Your task to perform on an android device: Show the shopping cart on bestbuy.com. Add "macbook" to the cart on bestbuy.com, then select checkout. Image 0: 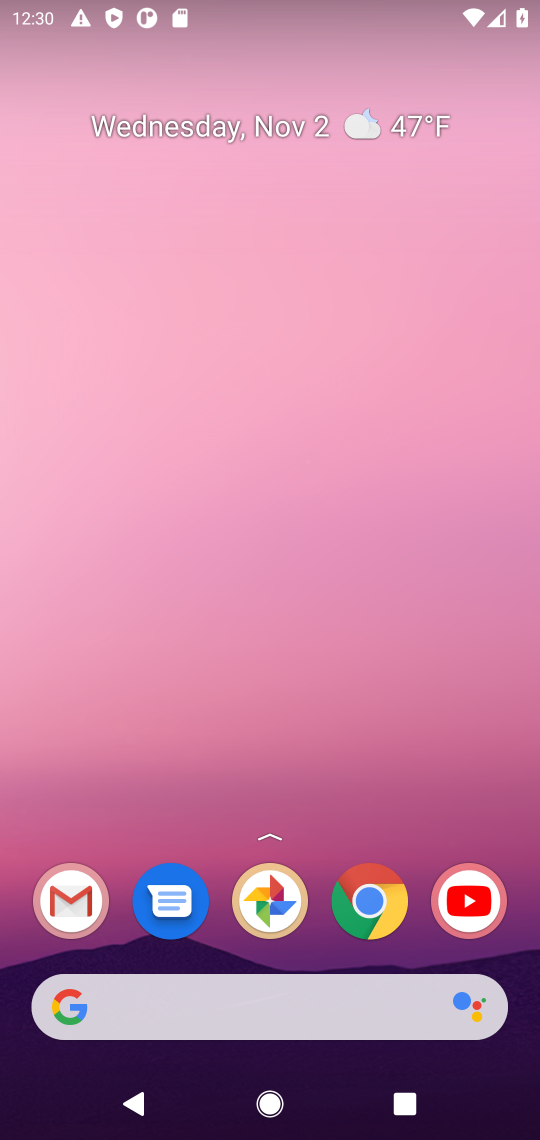
Step 0: drag from (325, 955) to (401, 4)
Your task to perform on an android device: Show the shopping cart on bestbuy.com. Add "macbook" to the cart on bestbuy.com, then select checkout. Image 1: 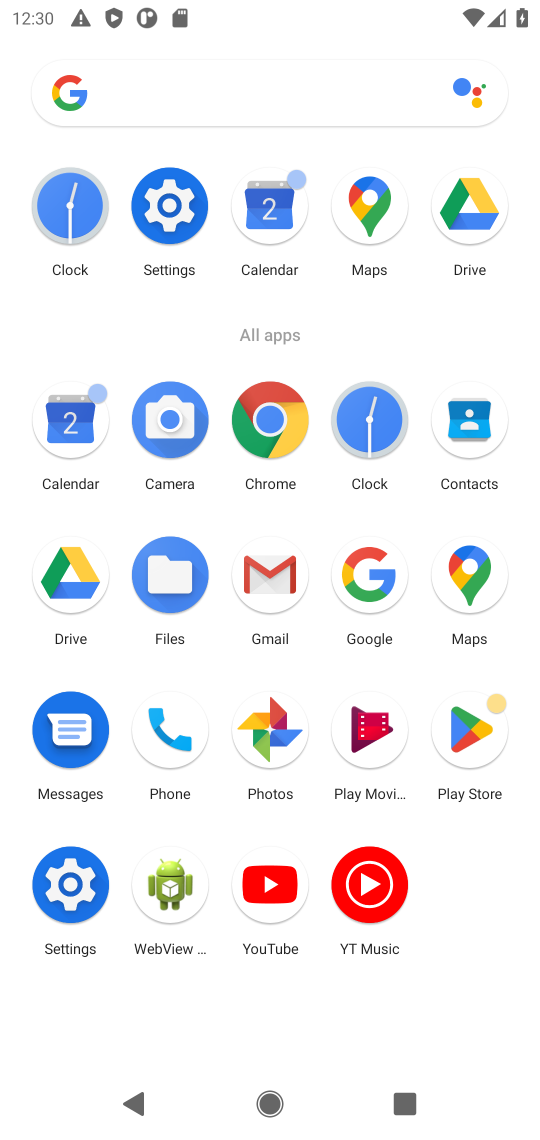
Step 1: click (273, 418)
Your task to perform on an android device: Show the shopping cart on bestbuy.com. Add "macbook" to the cart on bestbuy.com, then select checkout. Image 2: 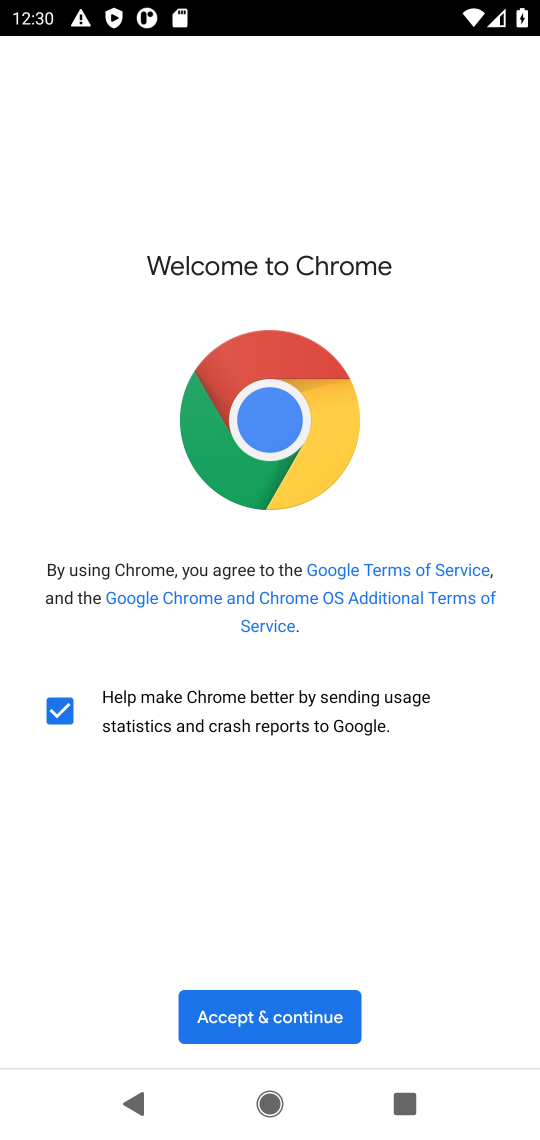
Step 2: click (228, 1024)
Your task to perform on an android device: Show the shopping cart on bestbuy.com. Add "macbook" to the cart on bestbuy.com, then select checkout. Image 3: 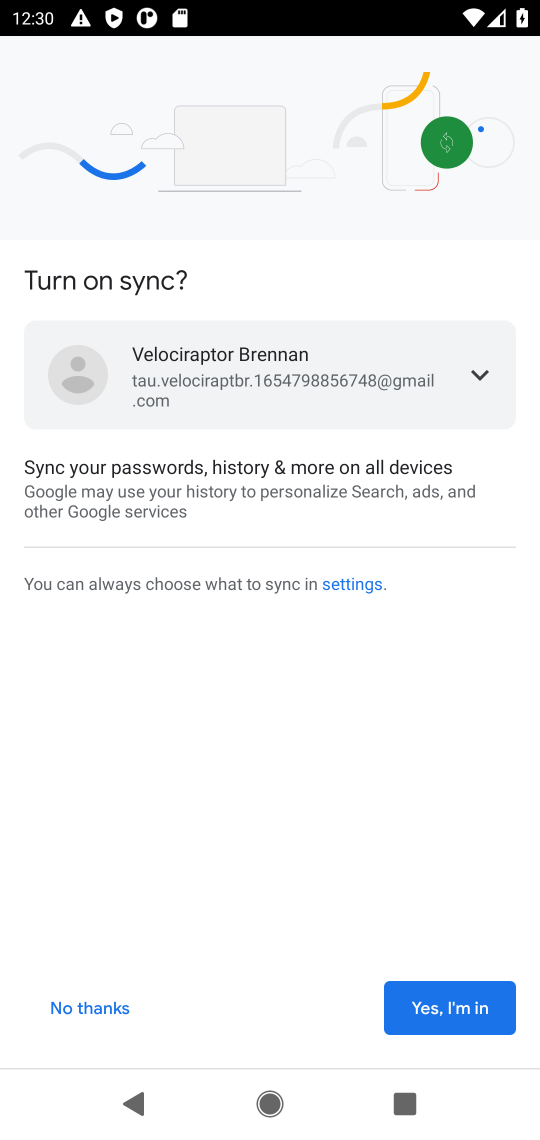
Step 3: click (417, 1014)
Your task to perform on an android device: Show the shopping cart on bestbuy.com. Add "macbook" to the cart on bestbuy.com, then select checkout. Image 4: 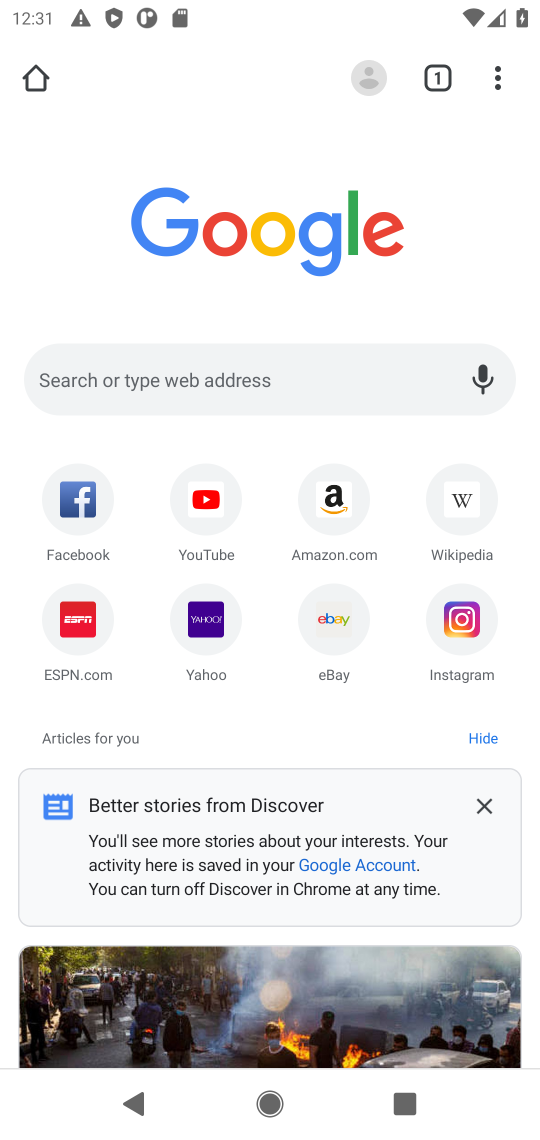
Step 4: click (371, 391)
Your task to perform on an android device: Show the shopping cart on bestbuy.com. Add "macbook" to the cart on bestbuy.com, then select checkout. Image 5: 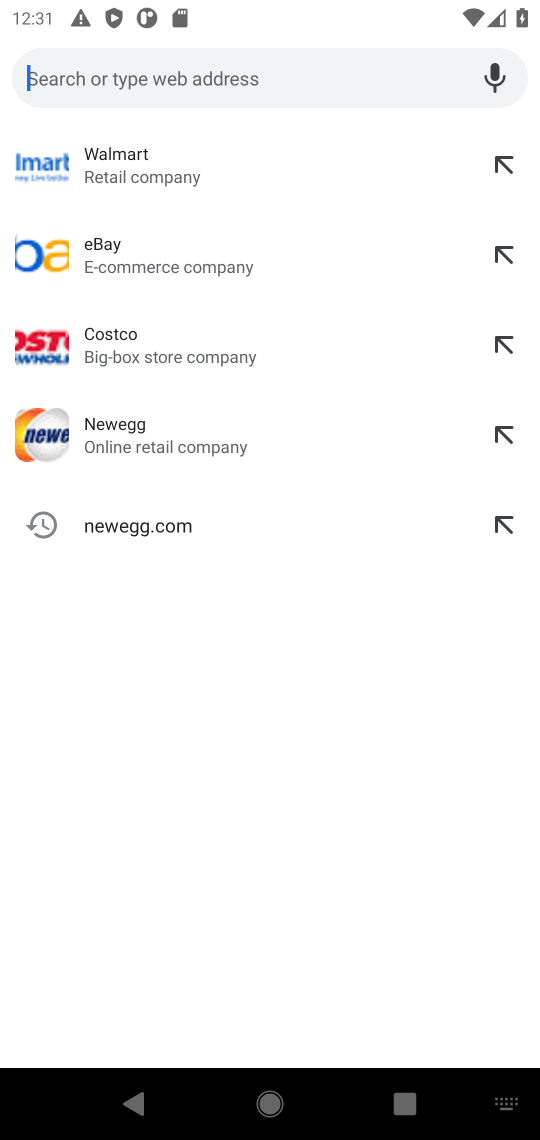
Step 5: type "bestbuy.com"
Your task to perform on an android device: Show the shopping cart on bestbuy.com. Add "macbook" to the cart on bestbuy.com, then select checkout. Image 6: 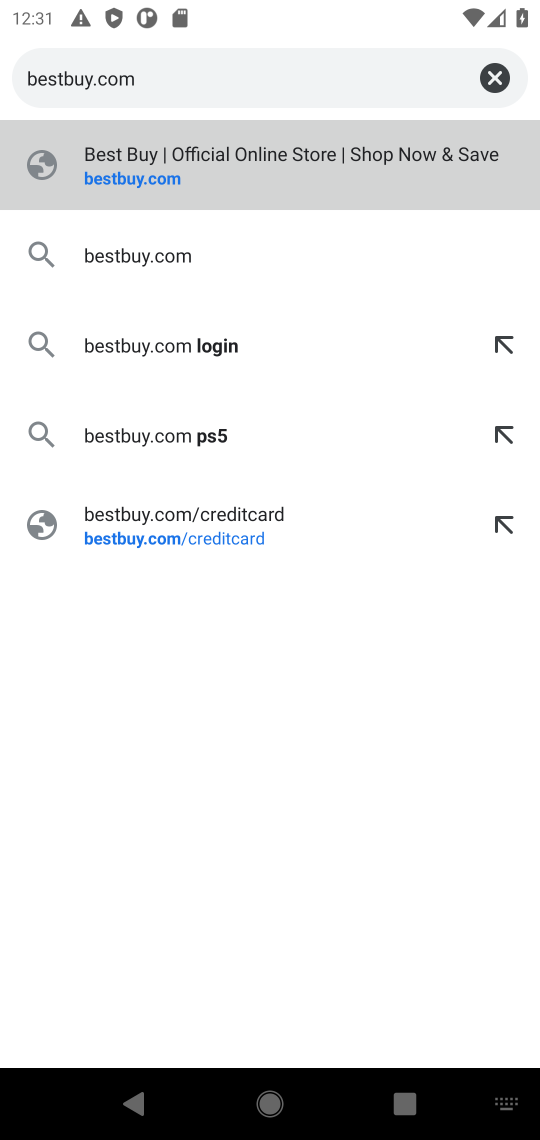
Step 6: press enter
Your task to perform on an android device: Show the shopping cart on bestbuy.com. Add "macbook" to the cart on bestbuy.com, then select checkout. Image 7: 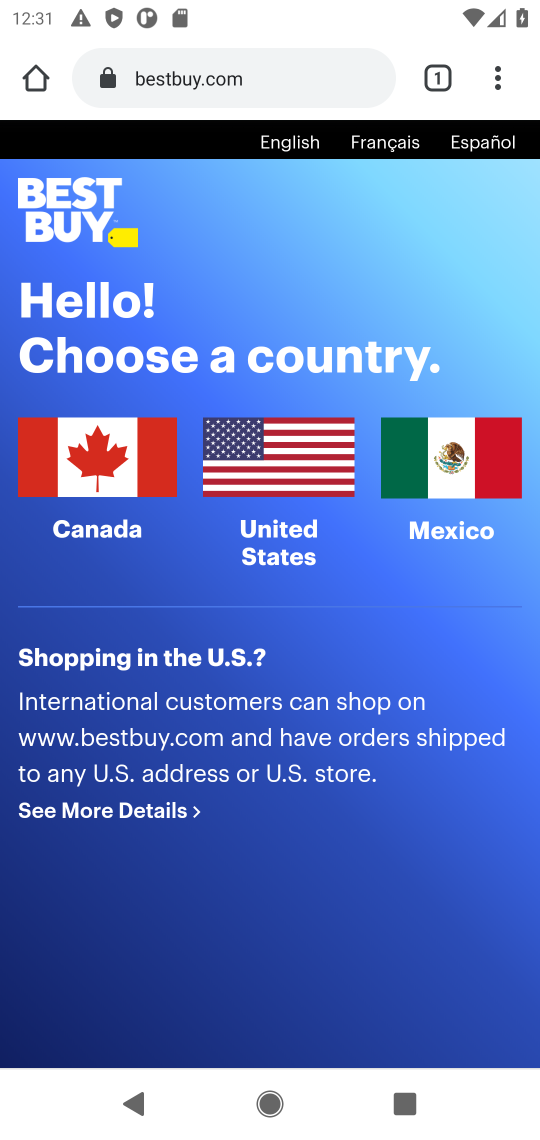
Step 7: click (98, 473)
Your task to perform on an android device: Show the shopping cart on bestbuy.com. Add "macbook" to the cart on bestbuy.com, then select checkout. Image 8: 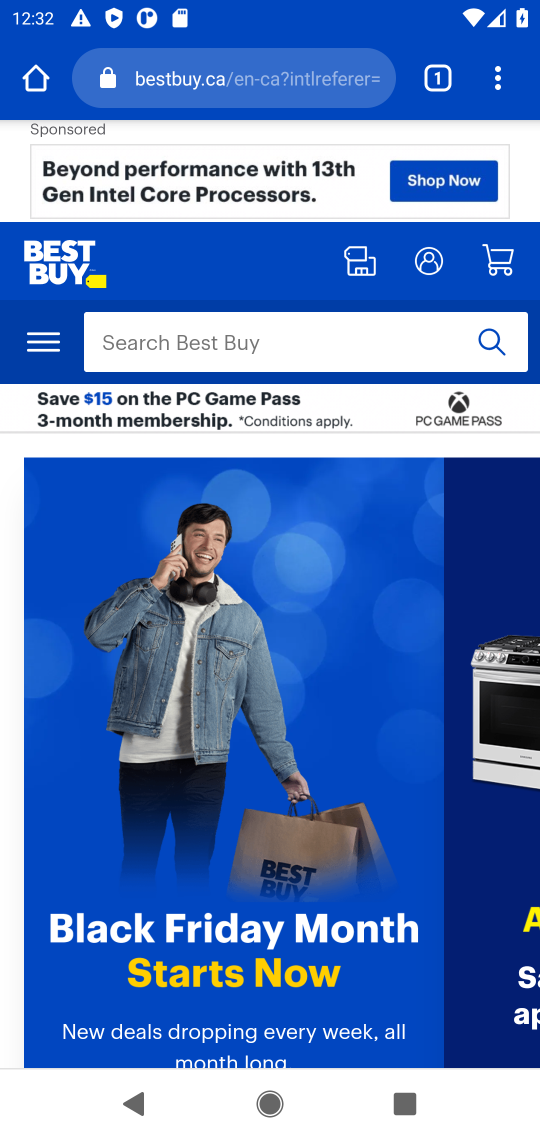
Step 8: click (278, 343)
Your task to perform on an android device: Show the shopping cart on bestbuy.com. Add "macbook" to the cart on bestbuy.com, then select checkout. Image 9: 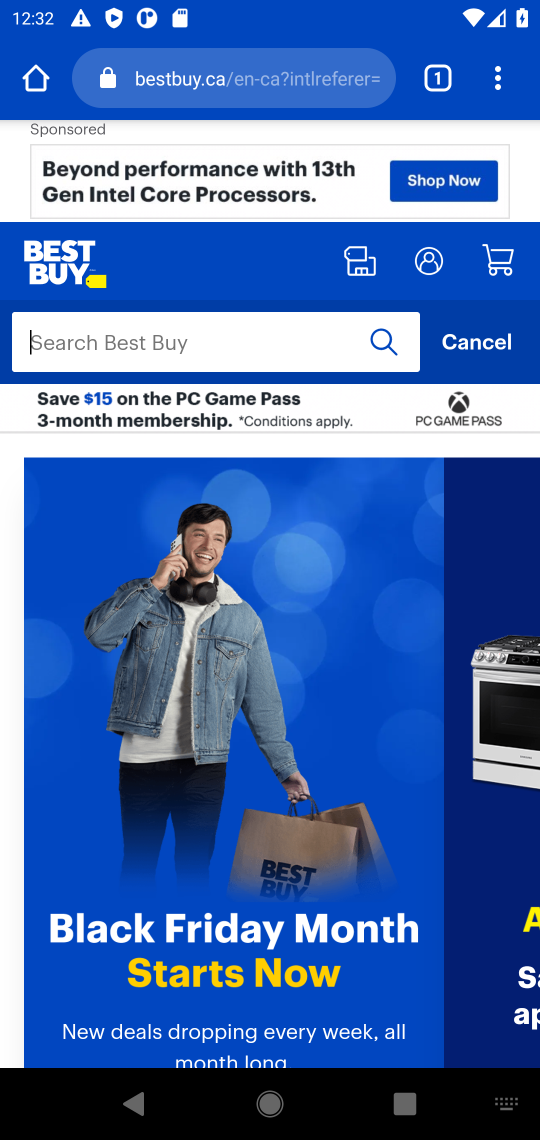
Step 9: click (496, 257)
Your task to perform on an android device: Show the shopping cart on bestbuy.com. Add "macbook" to the cart on bestbuy.com, then select checkout. Image 10: 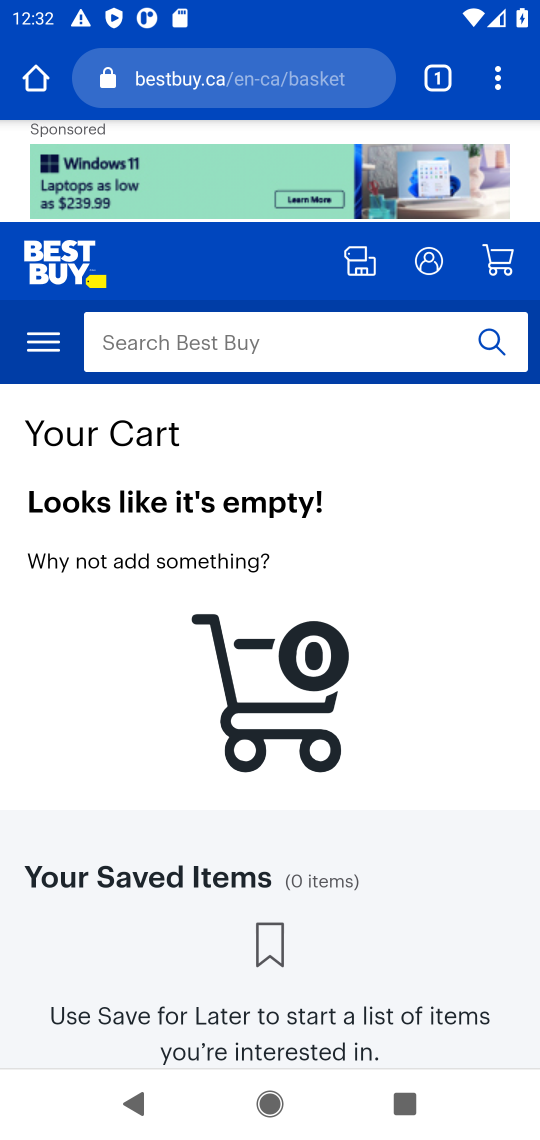
Step 10: click (331, 338)
Your task to perform on an android device: Show the shopping cart on bestbuy.com. Add "macbook" to the cart on bestbuy.com, then select checkout. Image 11: 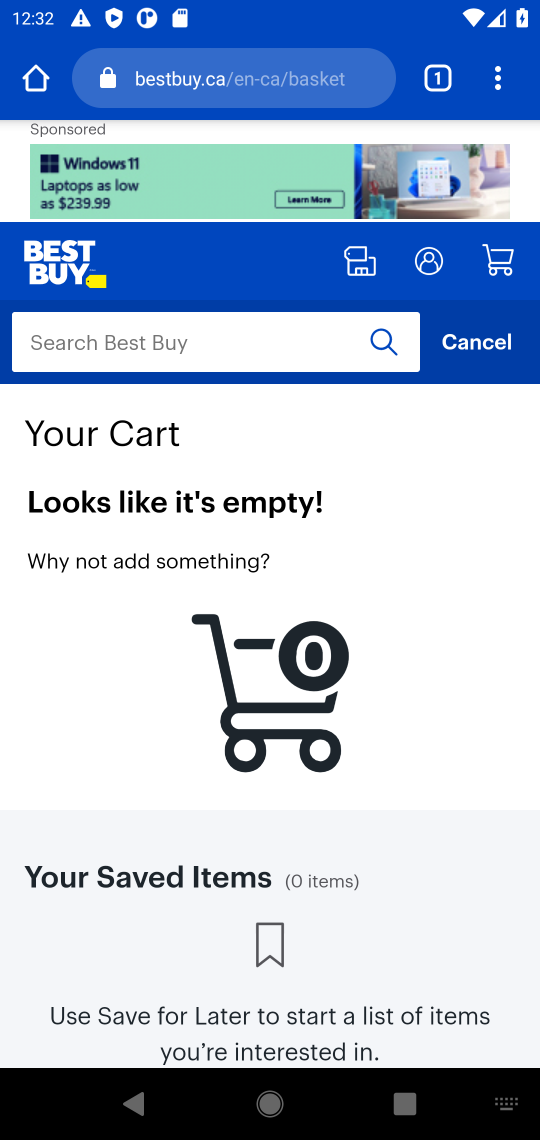
Step 11: type "macbook"
Your task to perform on an android device: Show the shopping cart on bestbuy.com. Add "macbook" to the cart on bestbuy.com, then select checkout. Image 12: 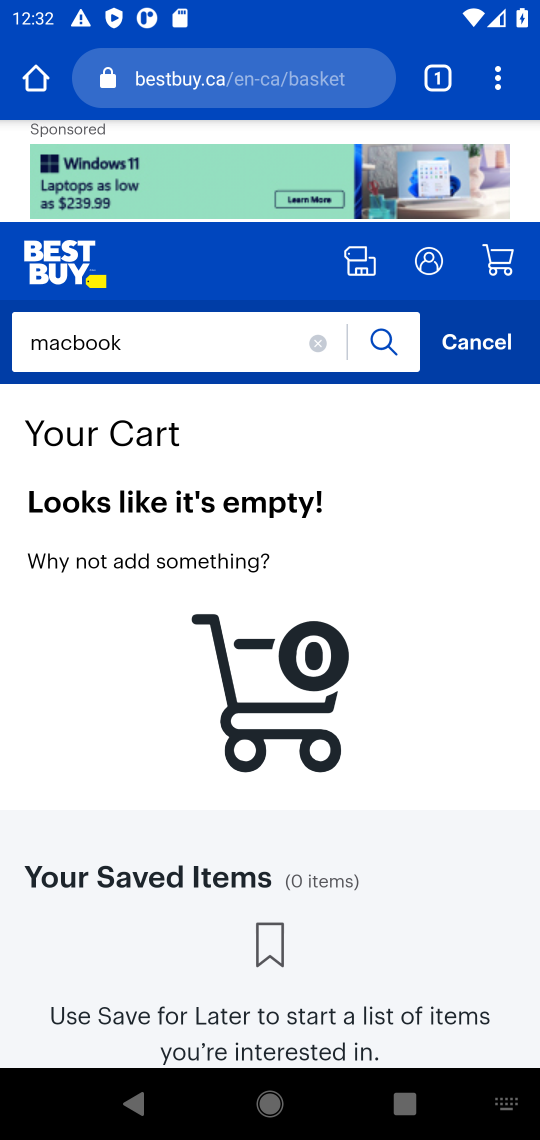
Step 12: press enter
Your task to perform on an android device: Show the shopping cart on bestbuy.com. Add "macbook" to the cart on bestbuy.com, then select checkout. Image 13: 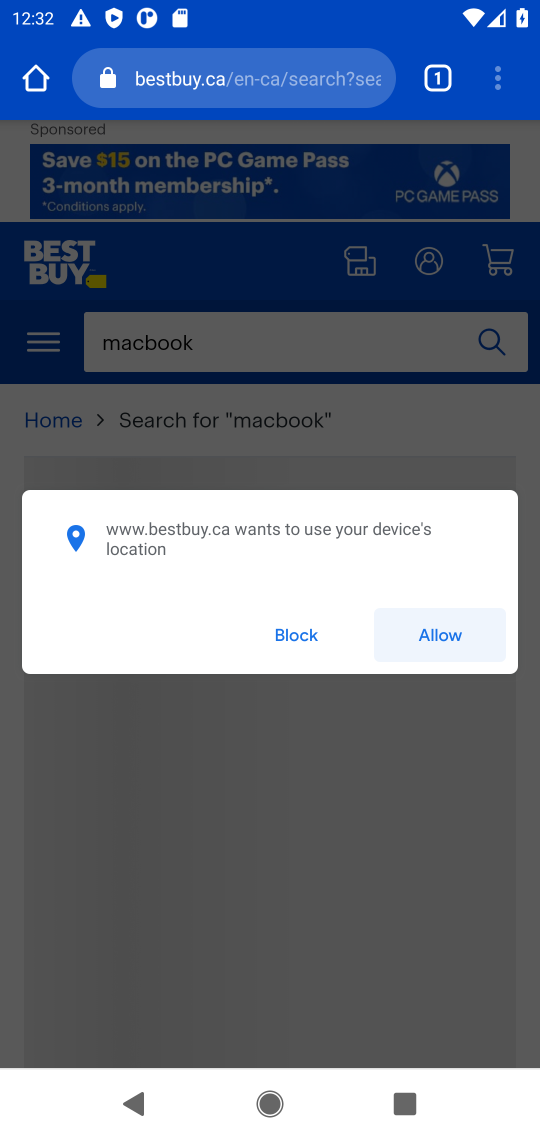
Step 13: click (284, 623)
Your task to perform on an android device: Show the shopping cart on bestbuy.com. Add "macbook" to the cart on bestbuy.com, then select checkout. Image 14: 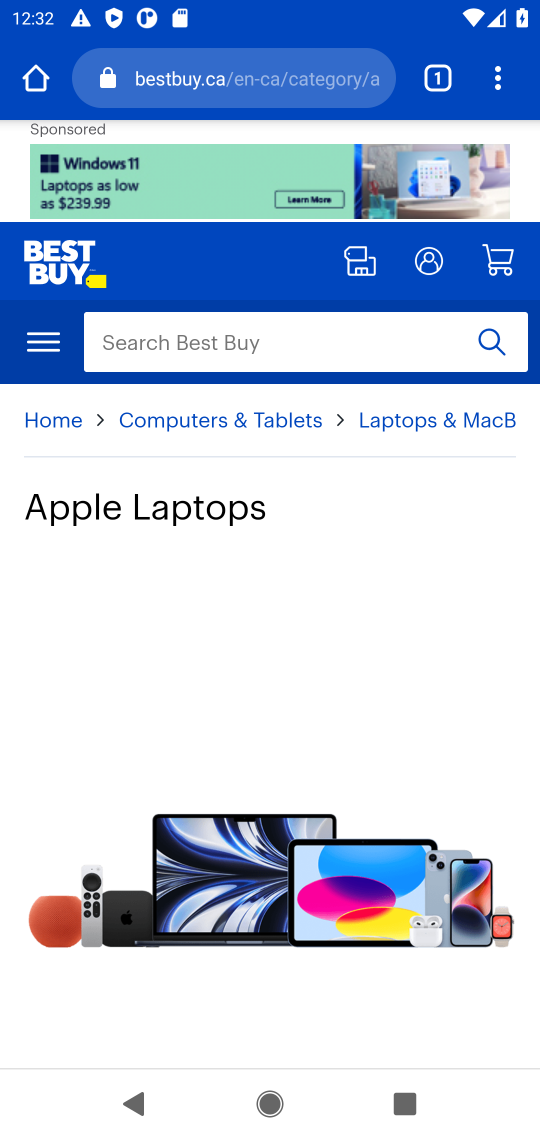
Step 14: drag from (209, 746) to (325, 248)
Your task to perform on an android device: Show the shopping cart on bestbuy.com. Add "macbook" to the cart on bestbuy.com, then select checkout. Image 15: 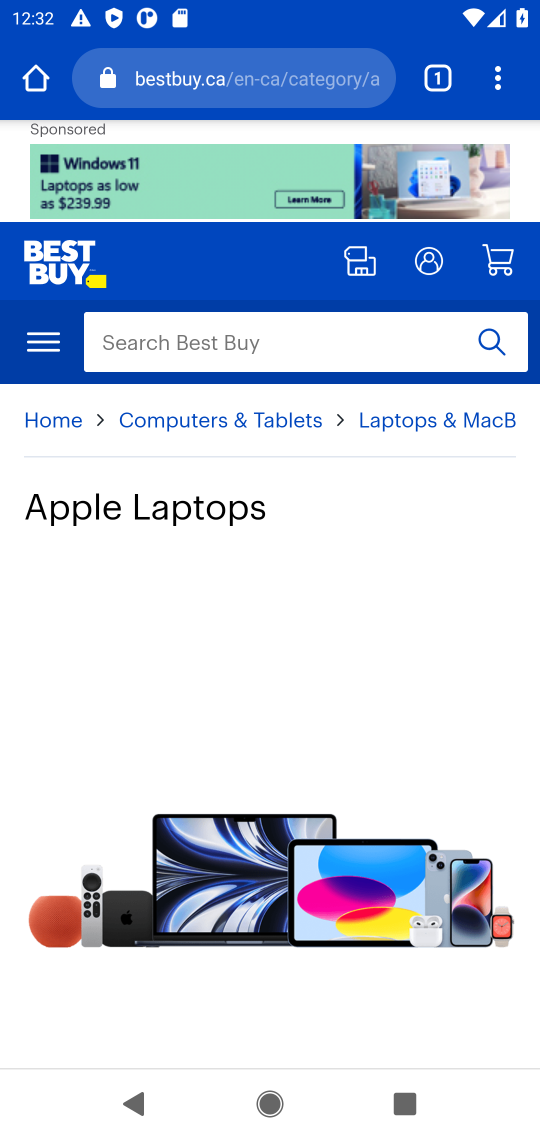
Step 15: click (308, 164)
Your task to perform on an android device: Show the shopping cart on bestbuy.com. Add "macbook" to the cart on bestbuy.com, then select checkout. Image 16: 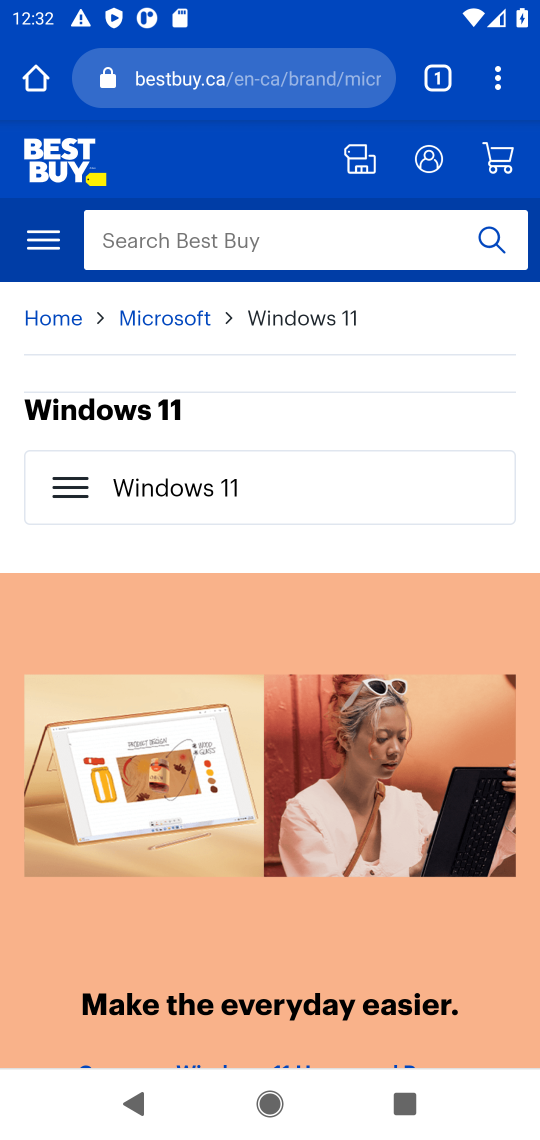
Step 16: drag from (268, 628) to (407, 183)
Your task to perform on an android device: Show the shopping cart on bestbuy.com. Add "macbook" to the cart on bestbuy.com, then select checkout. Image 17: 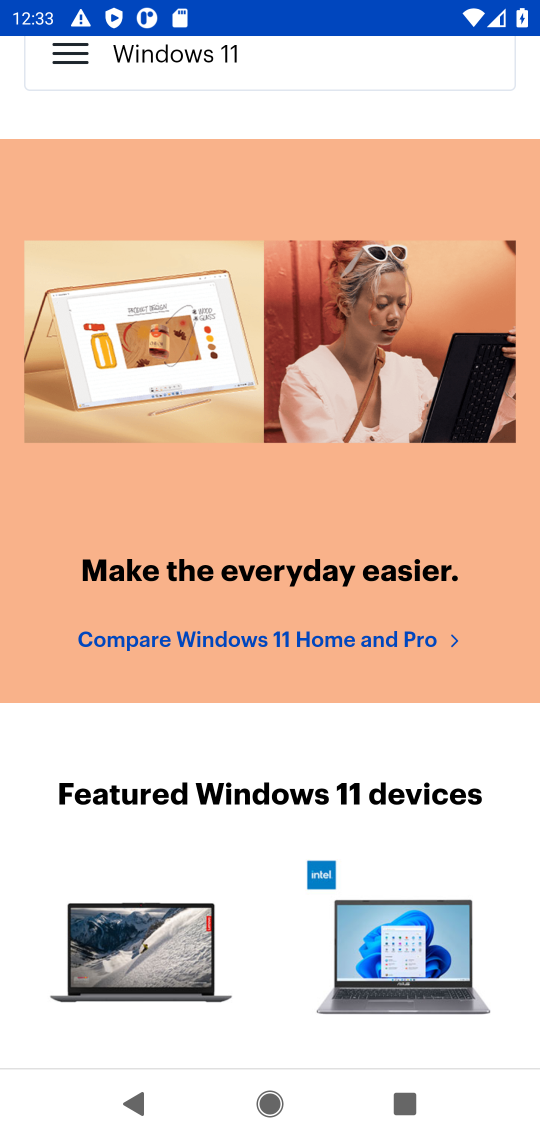
Step 17: drag from (348, 463) to (477, 40)
Your task to perform on an android device: Show the shopping cart on bestbuy.com. Add "macbook" to the cart on bestbuy.com, then select checkout. Image 18: 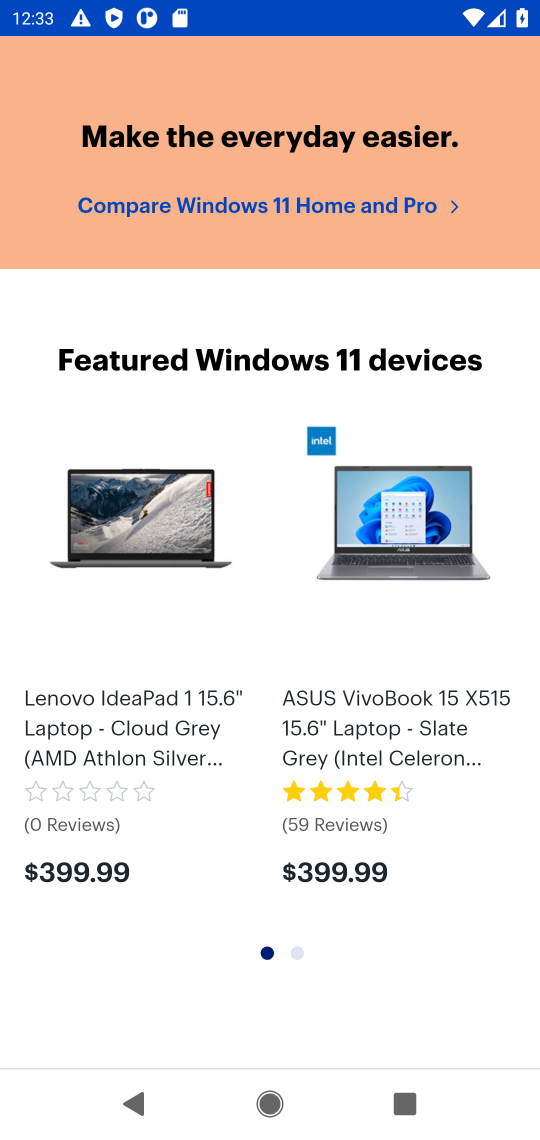
Step 18: drag from (188, 774) to (256, 371)
Your task to perform on an android device: Show the shopping cart on bestbuy.com. Add "macbook" to the cart on bestbuy.com, then select checkout. Image 19: 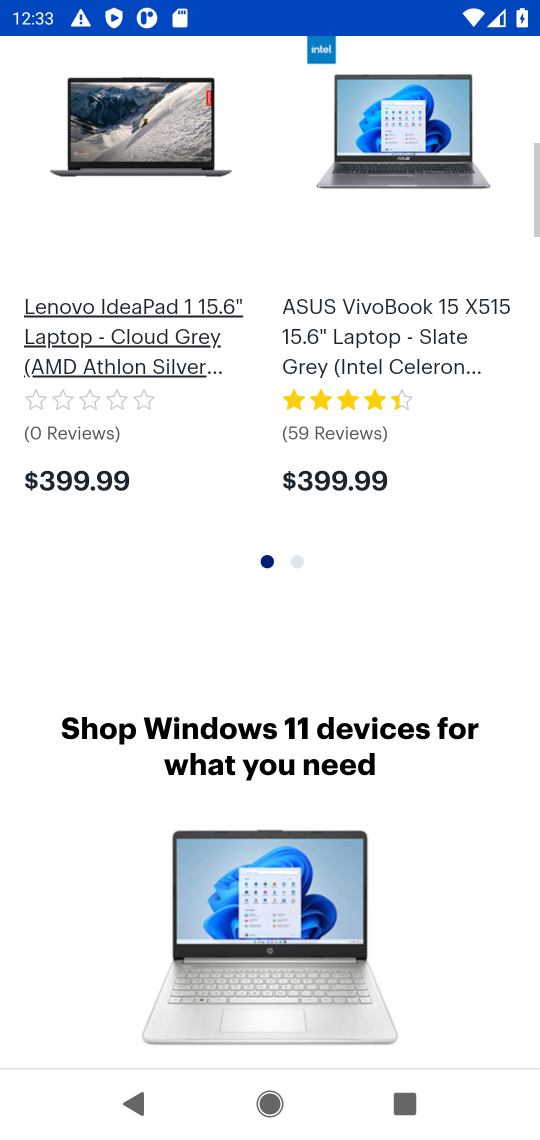
Step 19: drag from (103, 847) to (340, 547)
Your task to perform on an android device: Show the shopping cart on bestbuy.com. Add "macbook" to the cart on bestbuy.com, then select checkout. Image 20: 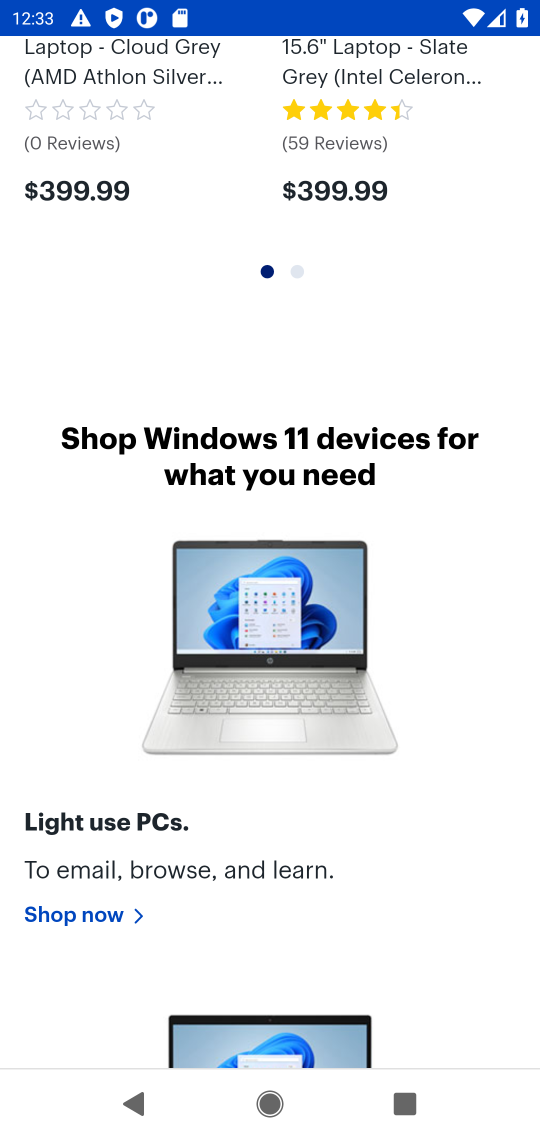
Step 20: drag from (281, 839) to (375, 413)
Your task to perform on an android device: Show the shopping cart on bestbuy.com. Add "macbook" to the cart on bestbuy.com, then select checkout. Image 21: 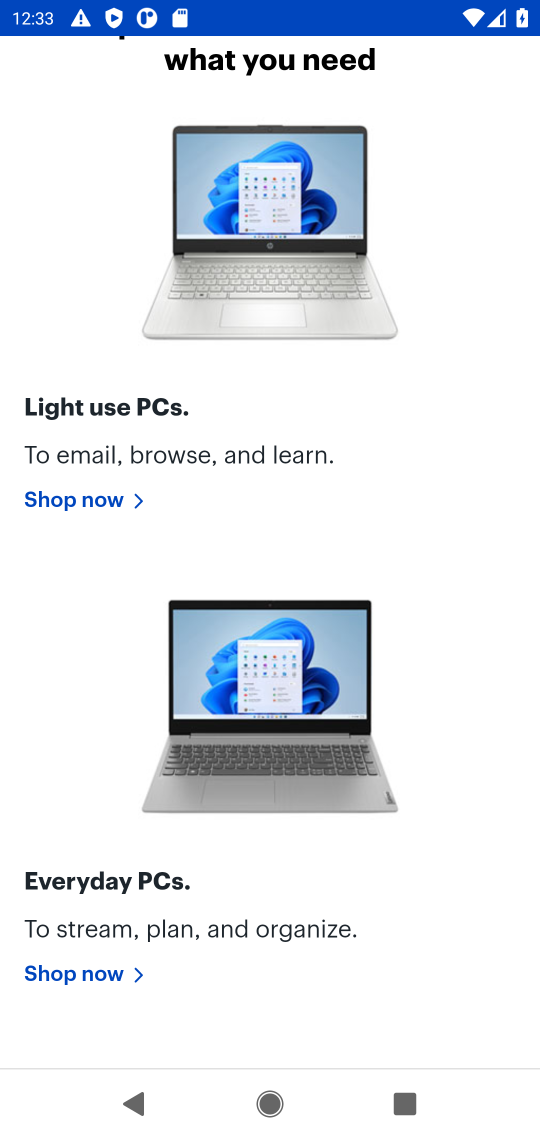
Step 21: drag from (349, 379) to (145, 902)
Your task to perform on an android device: Show the shopping cart on bestbuy.com. Add "macbook" to the cart on bestbuy.com, then select checkout. Image 22: 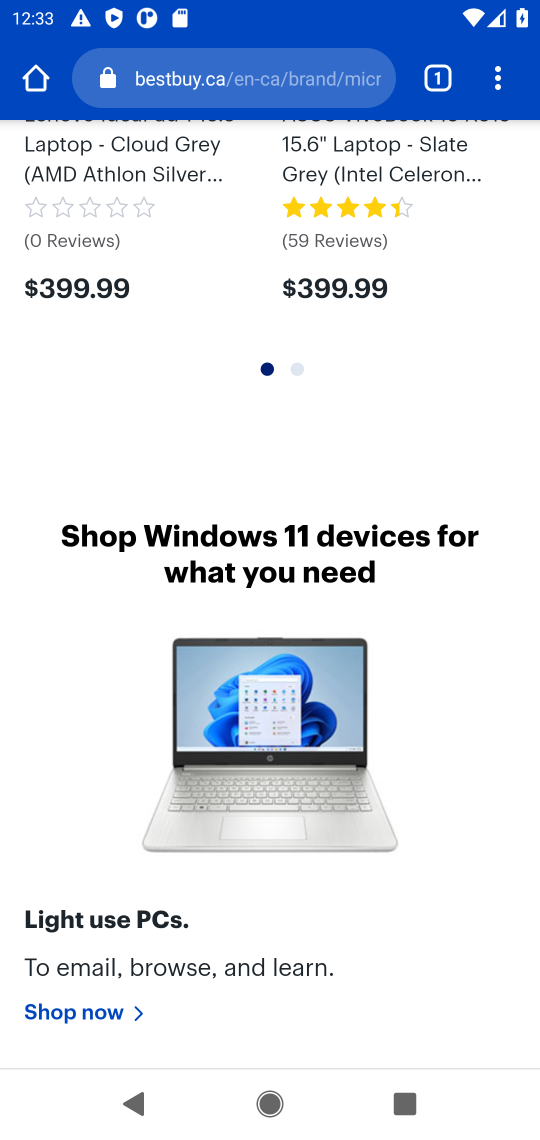
Step 22: click (111, 864)
Your task to perform on an android device: Show the shopping cart on bestbuy.com. Add "macbook" to the cart on bestbuy.com, then select checkout. Image 23: 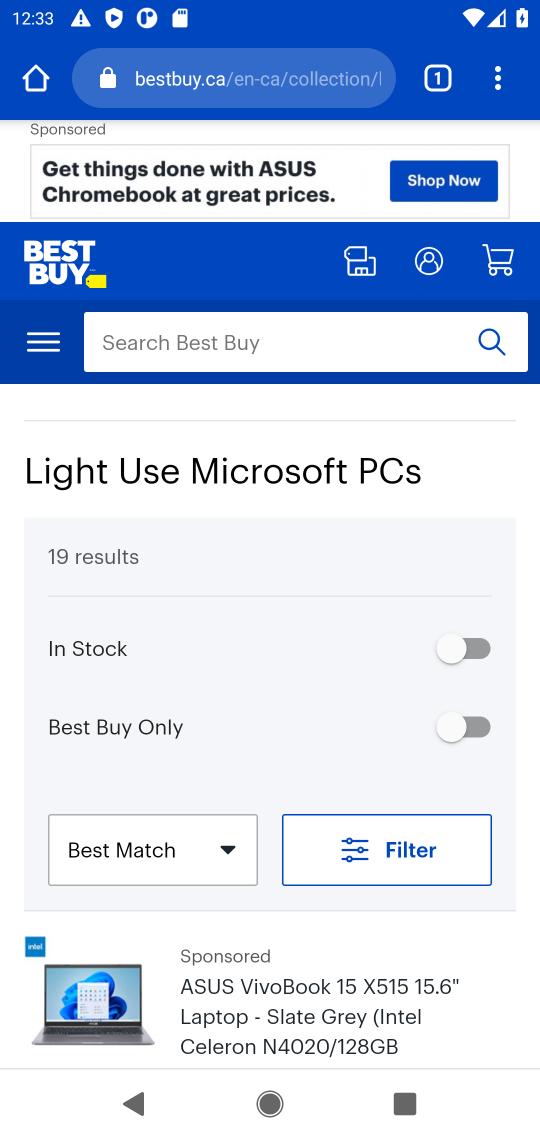
Step 23: press back button
Your task to perform on an android device: Show the shopping cart on bestbuy.com. Add "macbook" to the cart on bestbuy.com, then select checkout. Image 24: 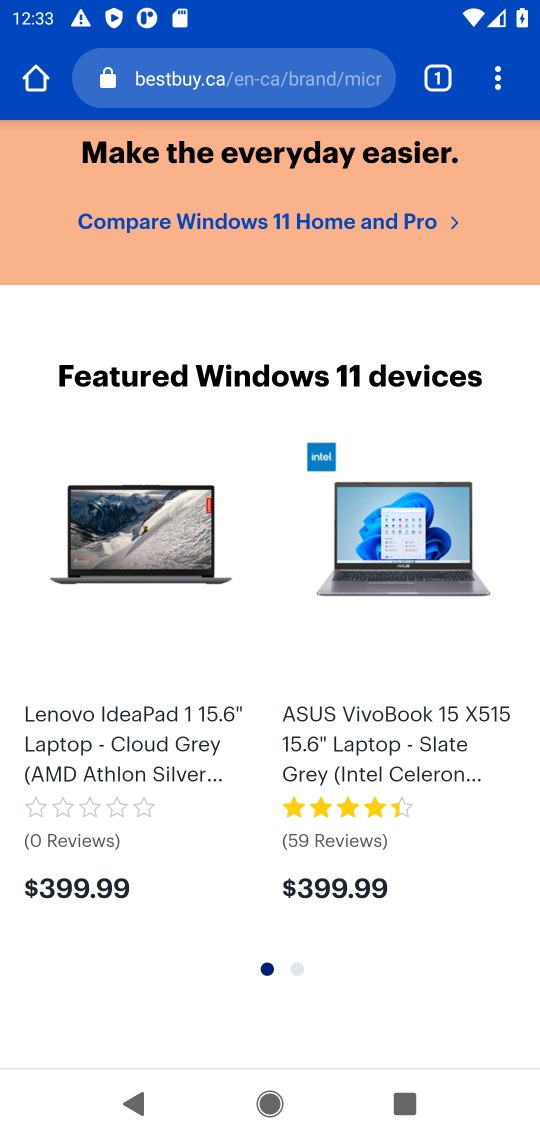
Step 24: drag from (317, 265) to (312, 1096)
Your task to perform on an android device: Show the shopping cart on bestbuy.com. Add "macbook" to the cart on bestbuy.com, then select checkout. Image 25: 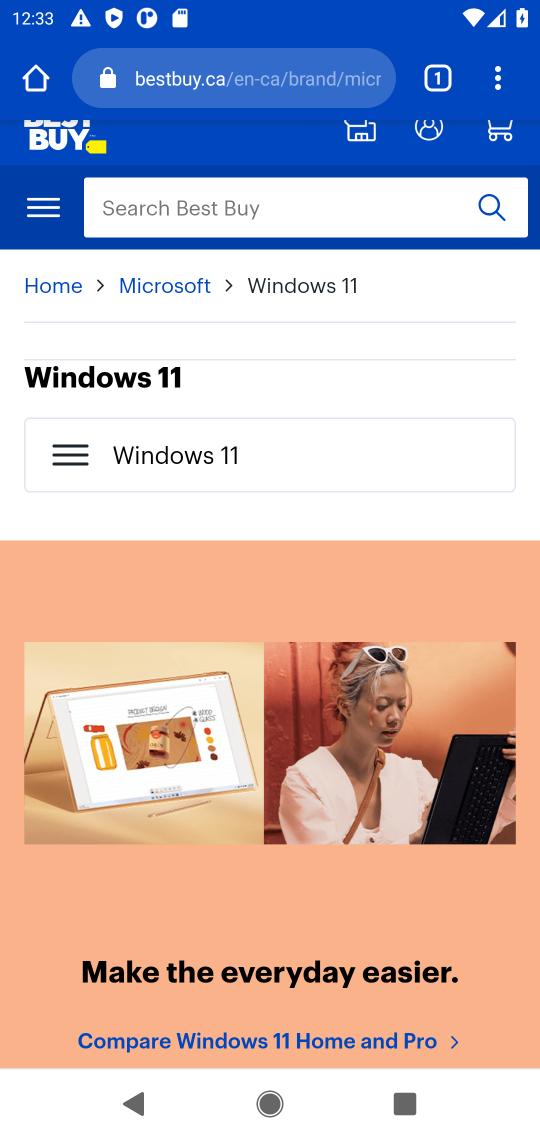
Step 25: click (271, 205)
Your task to perform on an android device: Show the shopping cart on bestbuy.com. Add "macbook" to the cart on bestbuy.com, then select checkout. Image 26: 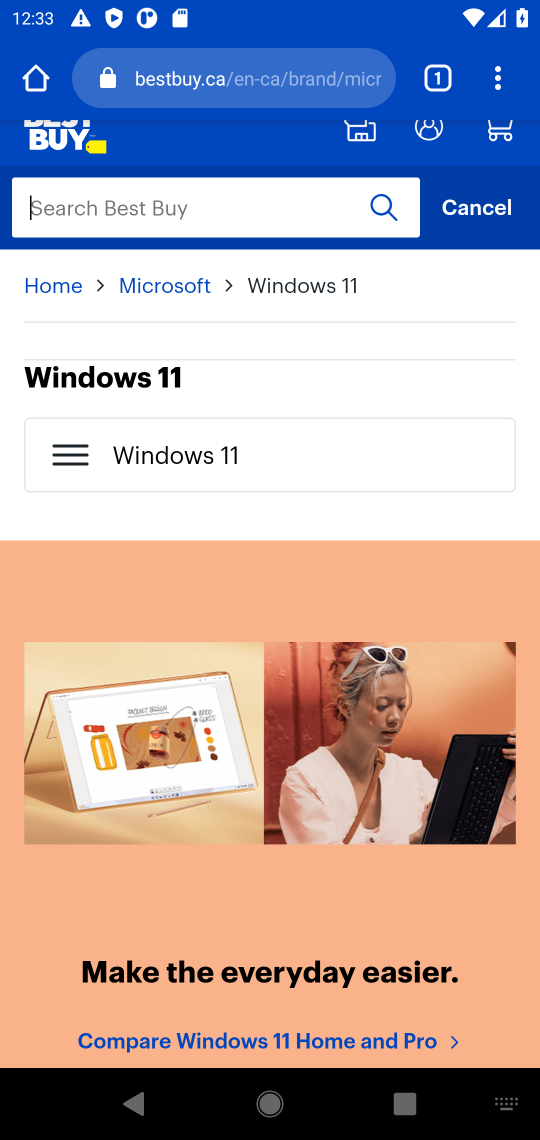
Step 26: type "macbook"
Your task to perform on an android device: Show the shopping cart on bestbuy.com. Add "macbook" to the cart on bestbuy.com, then select checkout. Image 27: 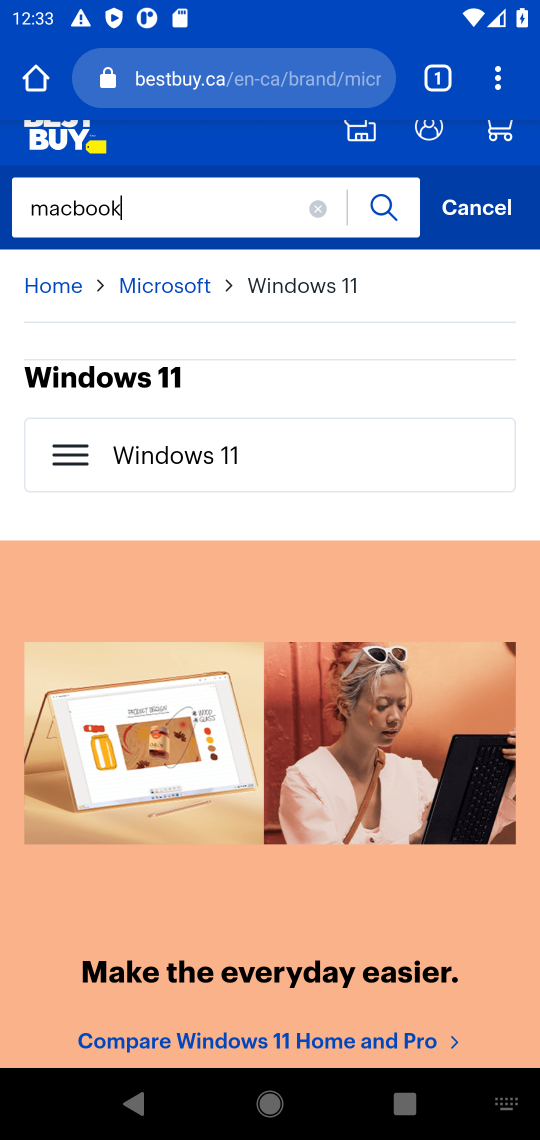
Step 27: press enter
Your task to perform on an android device: Show the shopping cart on bestbuy.com. Add "macbook" to the cart on bestbuy.com, then select checkout. Image 28: 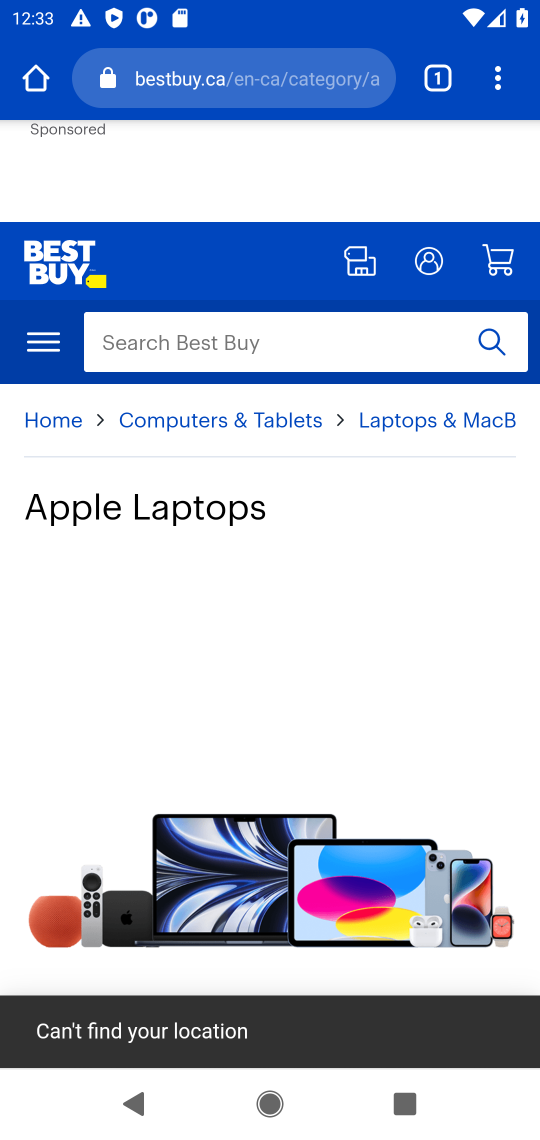
Step 28: drag from (243, 511) to (259, 70)
Your task to perform on an android device: Show the shopping cart on bestbuy.com. Add "macbook" to the cart on bestbuy.com, then select checkout. Image 29: 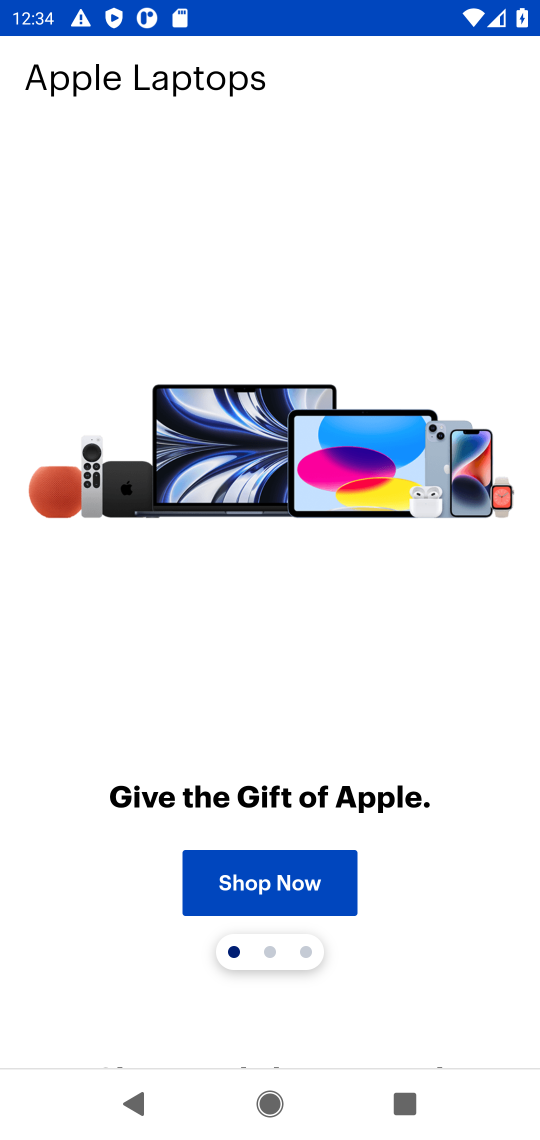
Step 29: drag from (359, 859) to (358, 153)
Your task to perform on an android device: Show the shopping cart on bestbuy.com. Add "macbook" to the cart on bestbuy.com, then select checkout. Image 30: 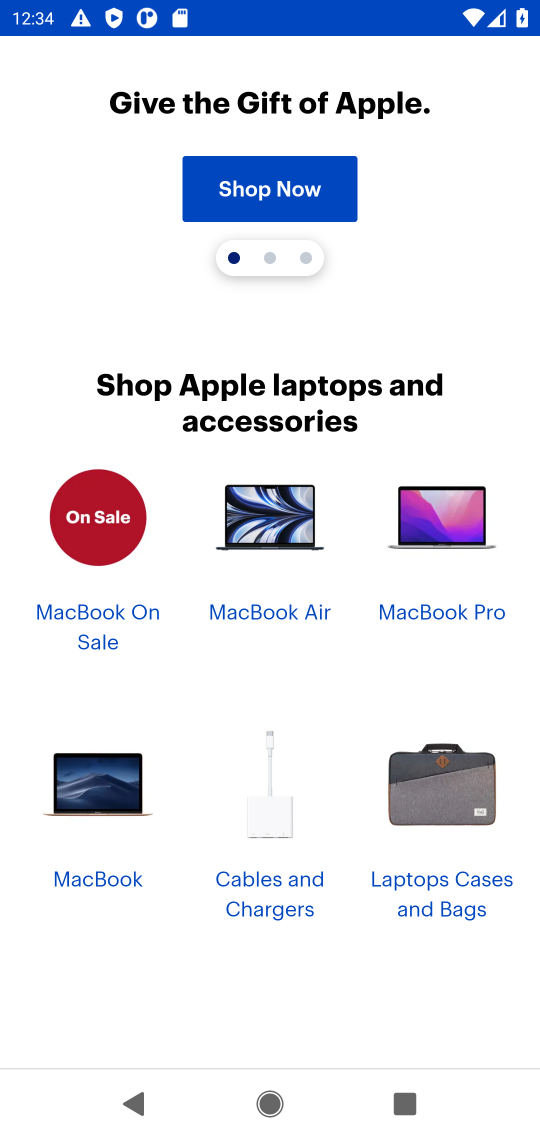
Step 30: drag from (412, 832) to (406, 486)
Your task to perform on an android device: Show the shopping cart on bestbuy.com. Add "macbook" to the cart on bestbuy.com, then select checkout. Image 31: 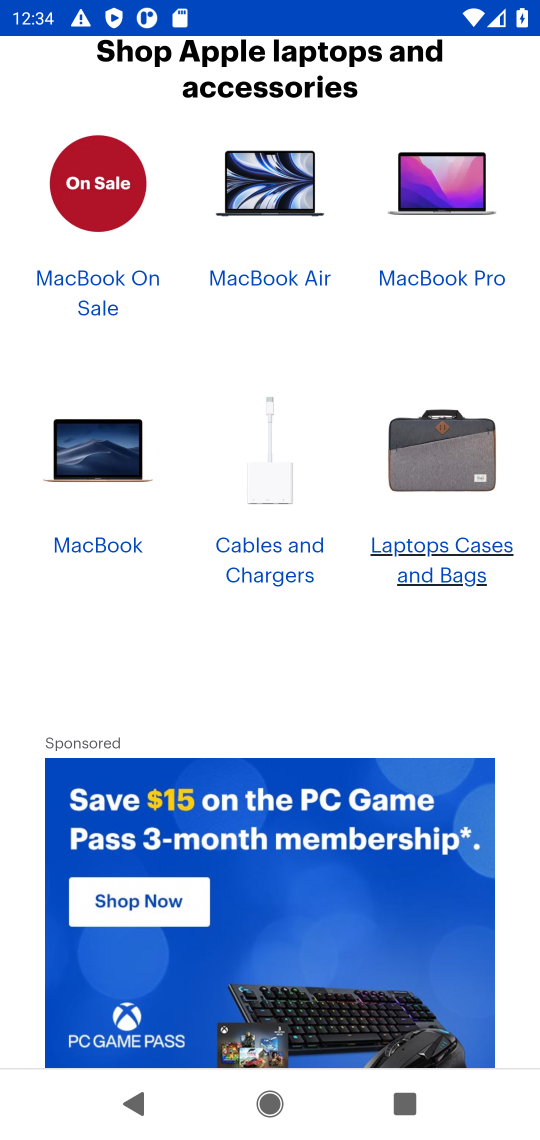
Step 31: drag from (433, 881) to (363, 301)
Your task to perform on an android device: Show the shopping cart on bestbuy.com. Add "macbook" to the cart on bestbuy.com, then select checkout. Image 32: 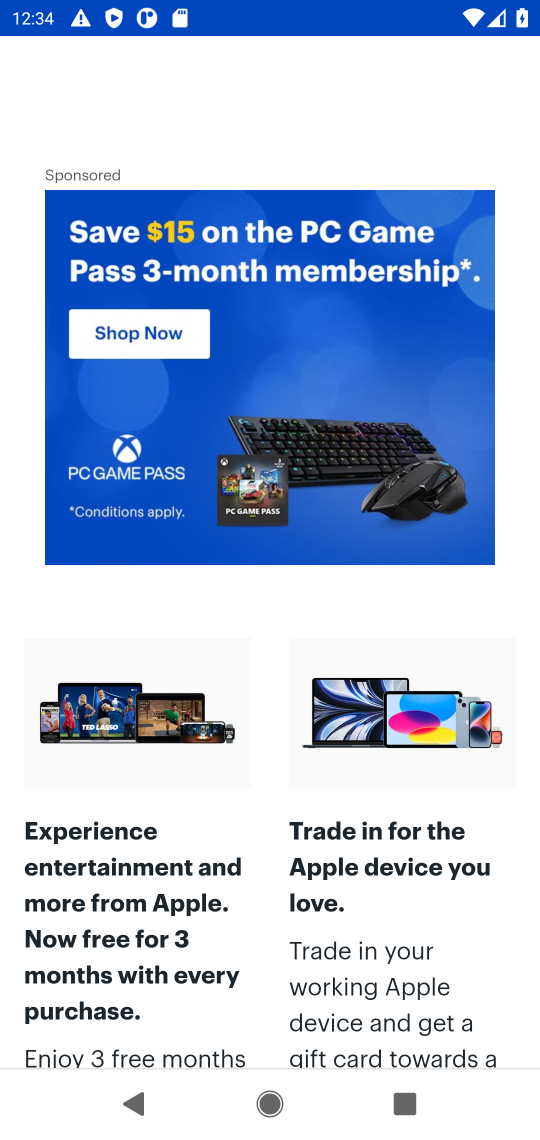
Step 32: drag from (352, 773) to (358, 243)
Your task to perform on an android device: Show the shopping cart on bestbuy.com. Add "macbook" to the cart on bestbuy.com, then select checkout. Image 33: 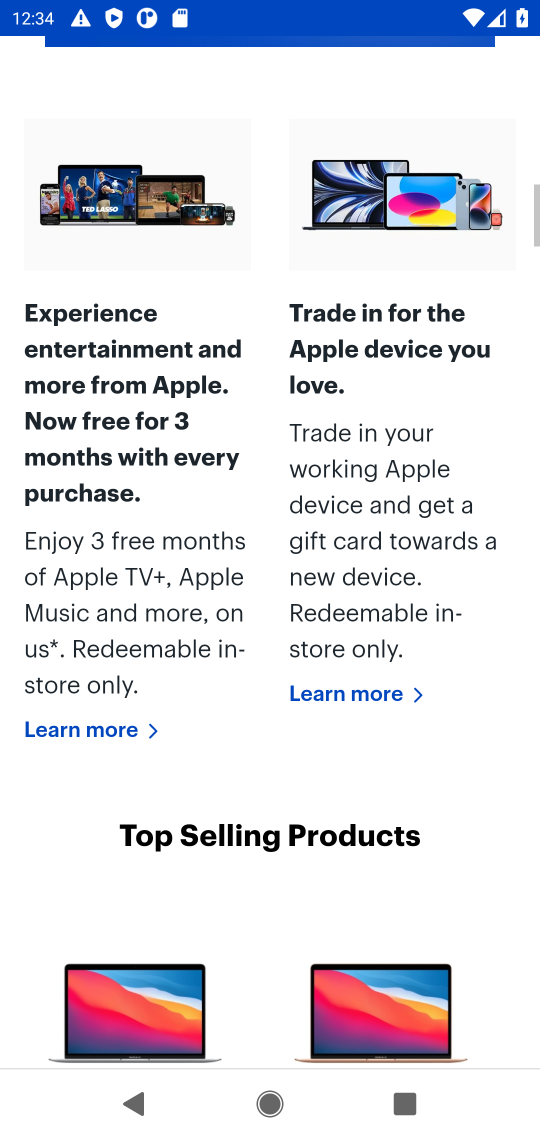
Step 33: drag from (347, 793) to (333, 321)
Your task to perform on an android device: Show the shopping cart on bestbuy.com. Add "macbook" to the cart on bestbuy.com, then select checkout. Image 34: 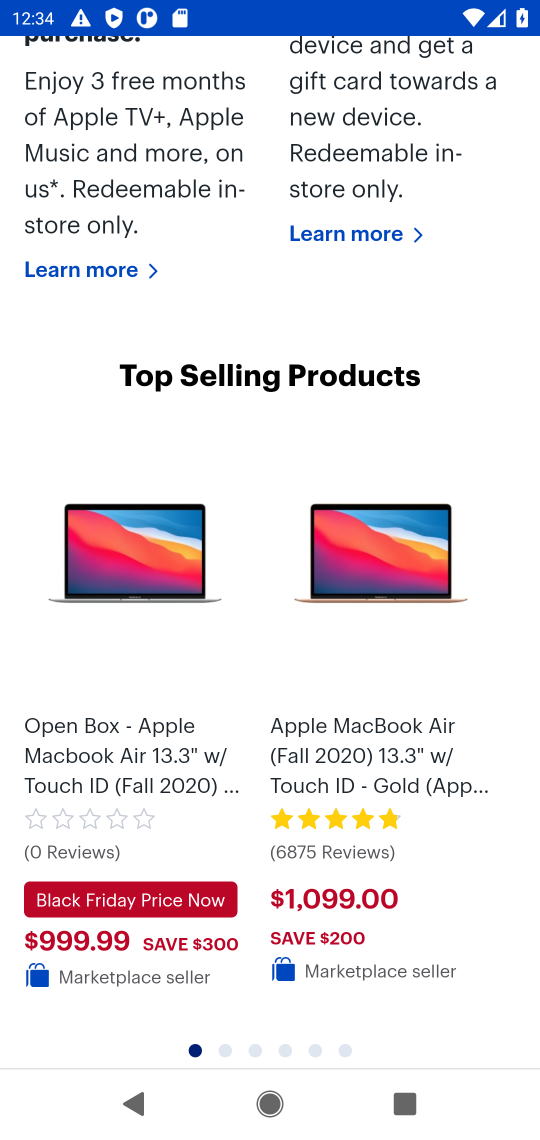
Step 34: click (134, 758)
Your task to perform on an android device: Show the shopping cart on bestbuy.com. Add "macbook" to the cart on bestbuy.com, then select checkout. Image 35: 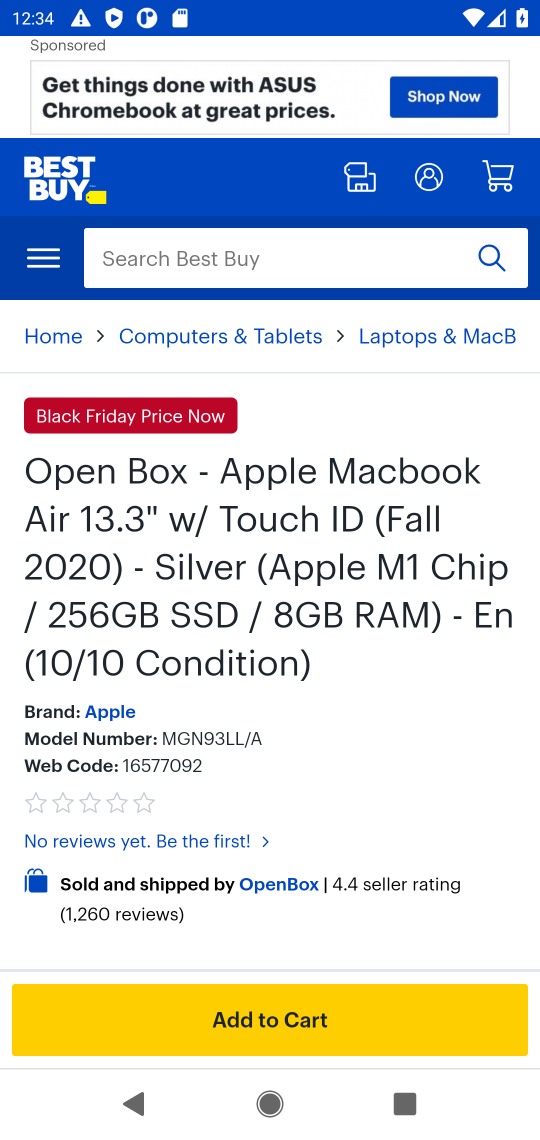
Step 35: click (305, 1027)
Your task to perform on an android device: Show the shopping cart on bestbuy.com. Add "macbook" to the cart on bestbuy.com, then select checkout. Image 36: 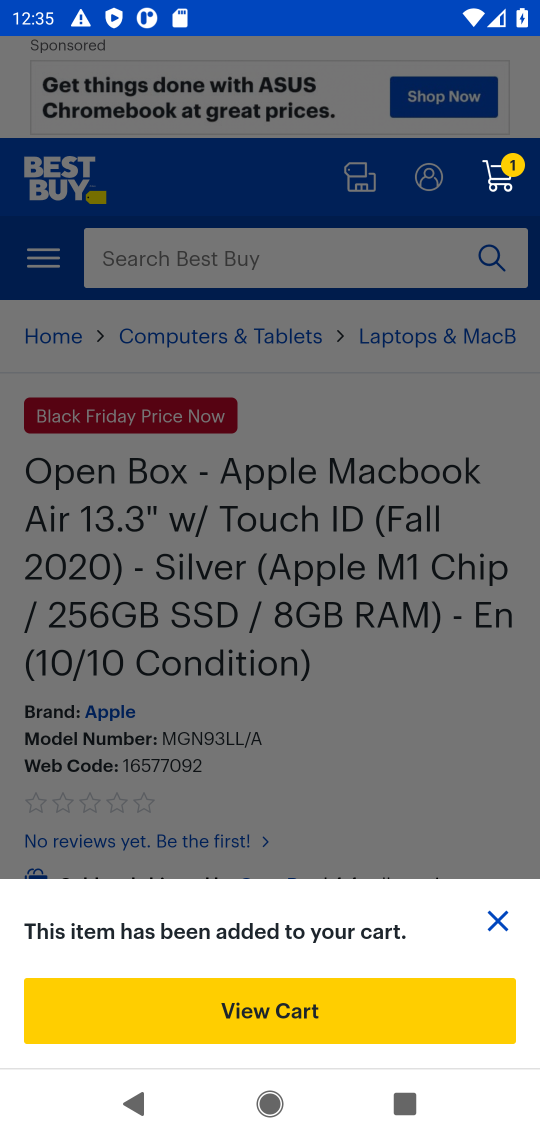
Step 36: click (286, 1029)
Your task to perform on an android device: Show the shopping cart on bestbuy.com. Add "macbook" to the cart on bestbuy.com, then select checkout. Image 37: 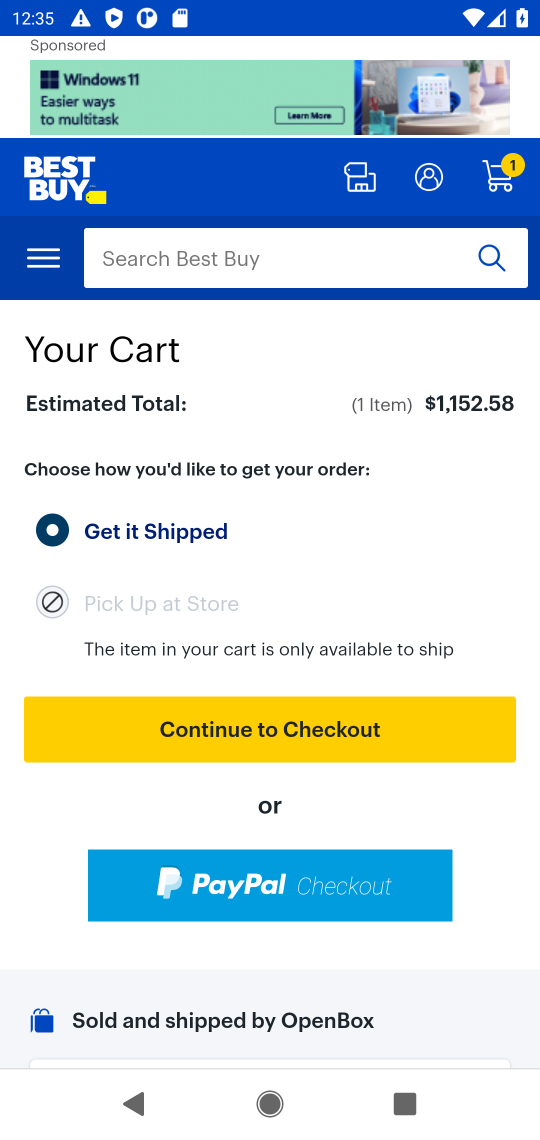
Step 37: click (345, 728)
Your task to perform on an android device: Show the shopping cart on bestbuy.com. Add "macbook" to the cart on bestbuy.com, then select checkout. Image 38: 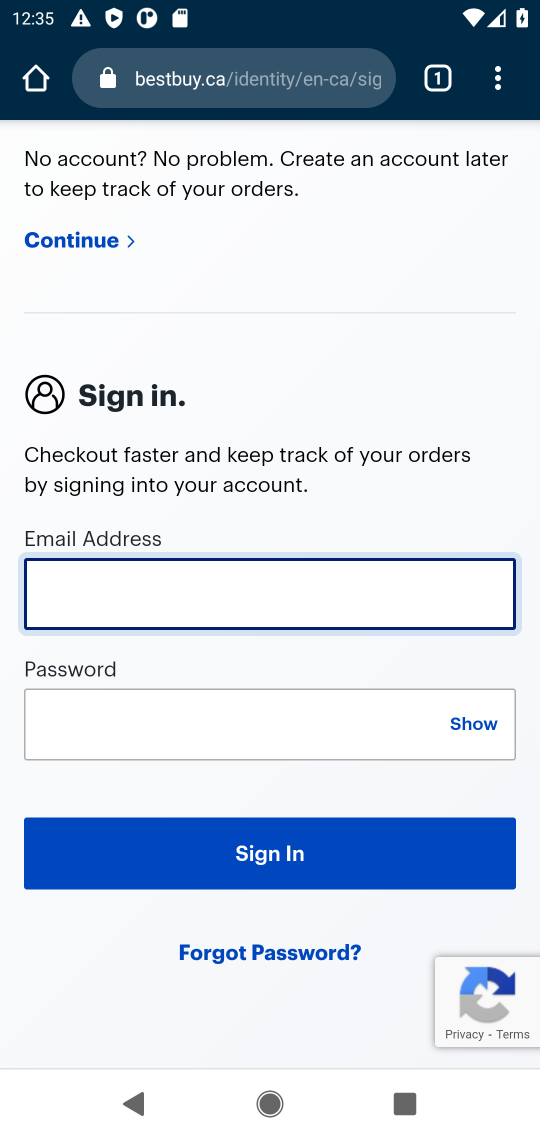
Step 38: task complete